Your task to perform on an android device: check out phone information Image 0: 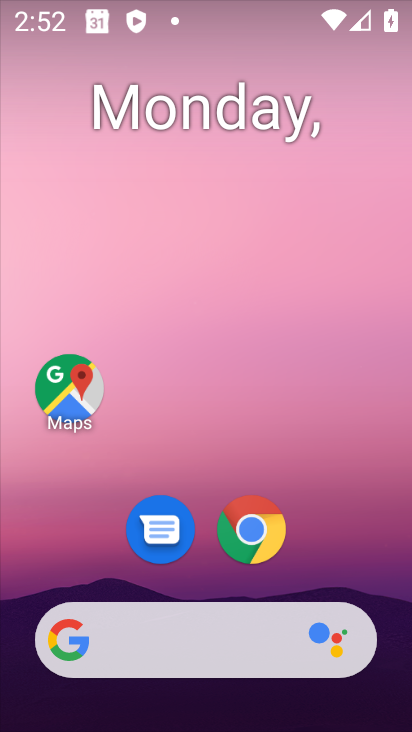
Step 0: drag from (398, 574) to (261, 182)
Your task to perform on an android device: check out phone information Image 1: 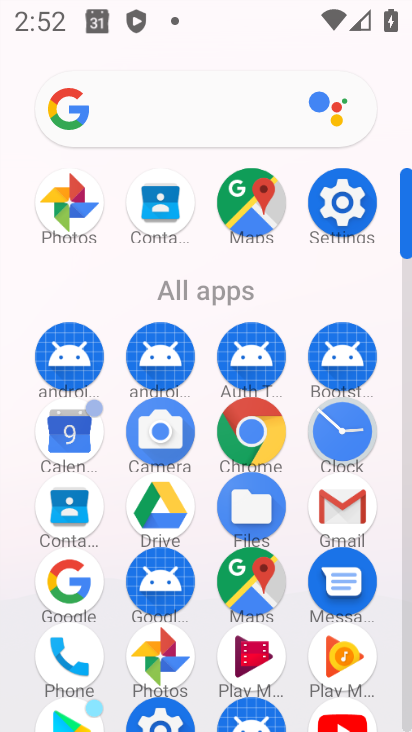
Step 1: click (356, 212)
Your task to perform on an android device: check out phone information Image 2: 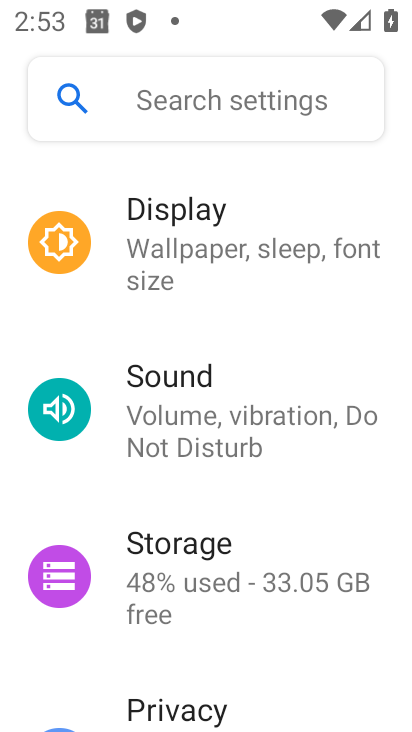
Step 2: drag from (338, 637) to (316, 190)
Your task to perform on an android device: check out phone information Image 3: 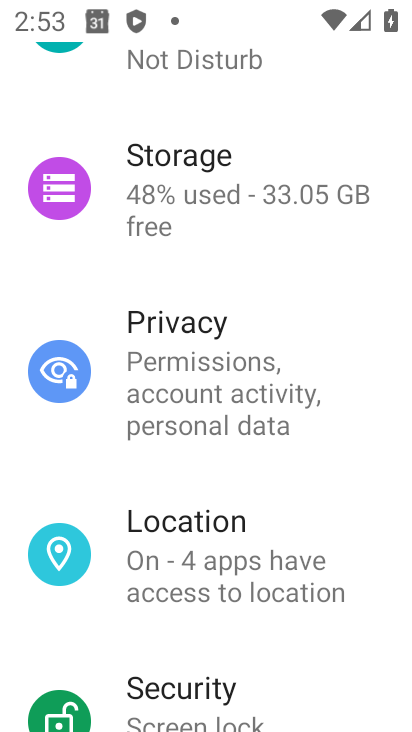
Step 3: drag from (339, 665) to (261, 129)
Your task to perform on an android device: check out phone information Image 4: 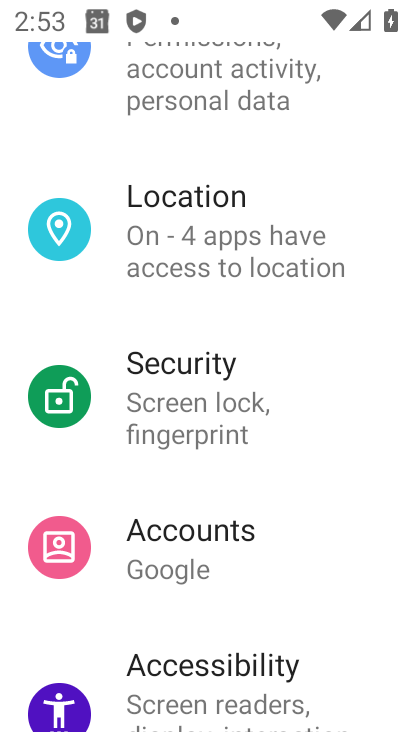
Step 4: drag from (313, 668) to (263, 244)
Your task to perform on an android device: check out phone information Image 5: 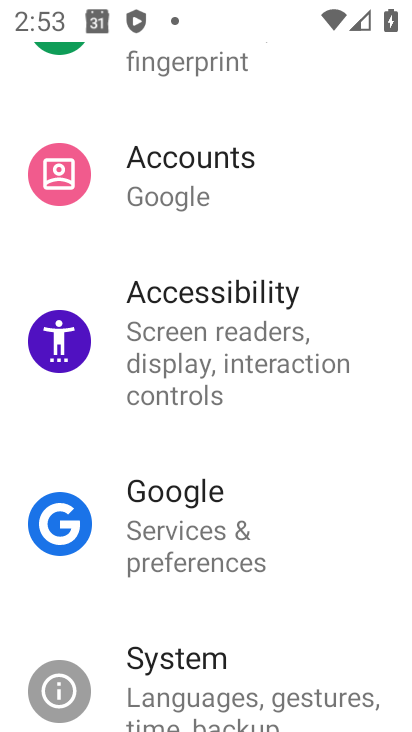
Step 5: drag from (307, 648) to (257, 157)
Your task to perform on an android device: check out phone information Image 6: 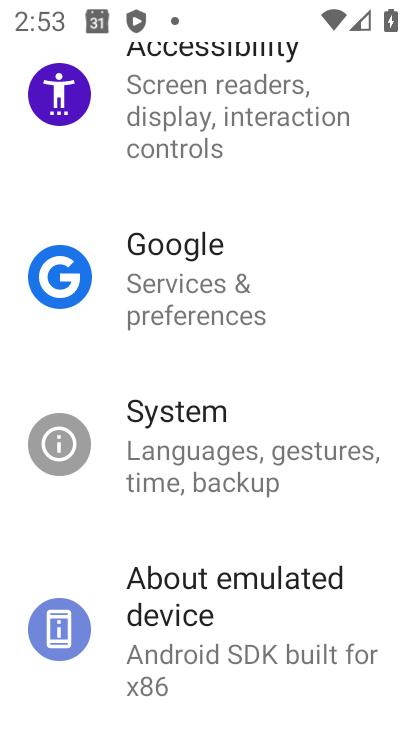
Step 6: click (321, 588)
Your task to perform on an android device: check out phone information Image 7: 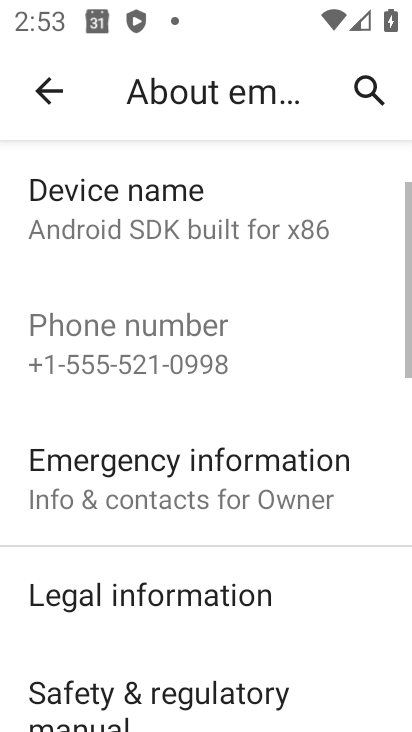
Step 7: click (321, 588)
Your task to perform on an android device: check out phone information Image 8: 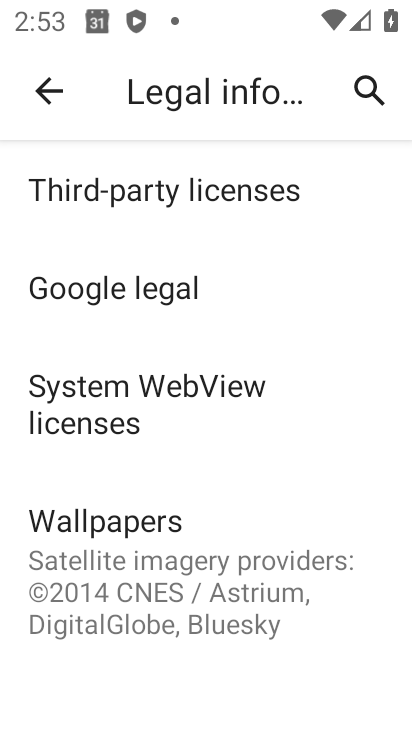
Step 8: click (61, 90)
Your task to perform on an android device: check out phone information Image 9: 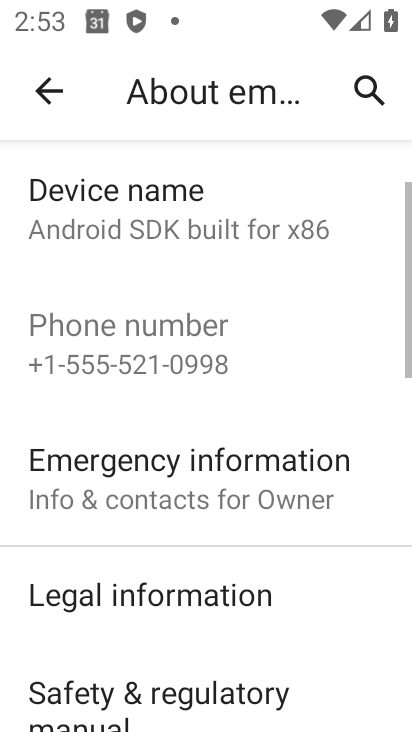
Step 9: task complete